Your task to perform on an android device: Do I have any events today? Image 0: 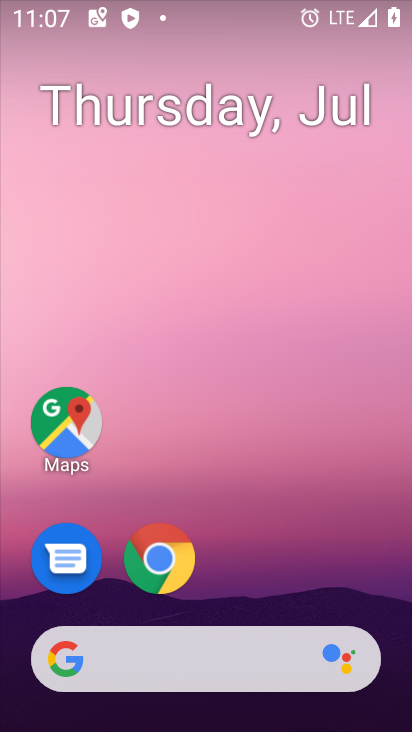
Step 0: drag from (354, 579) to (359, 95)
Your task to perform on an android device: Do I have any events today? Image 1: 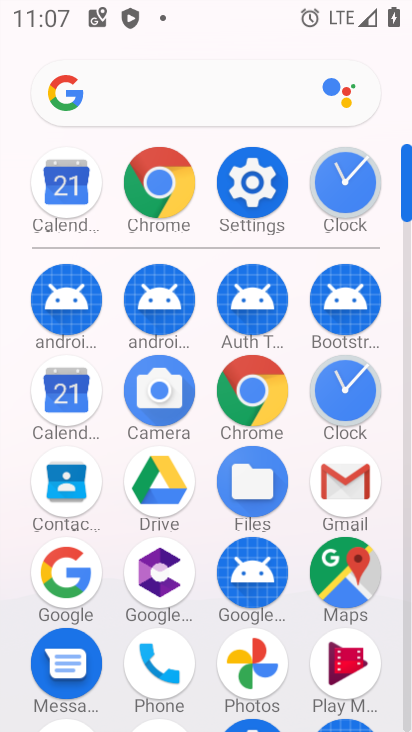
Step 1: click (74, 402)
Your task to perform on an android device: Do I have any events today? Image 2: 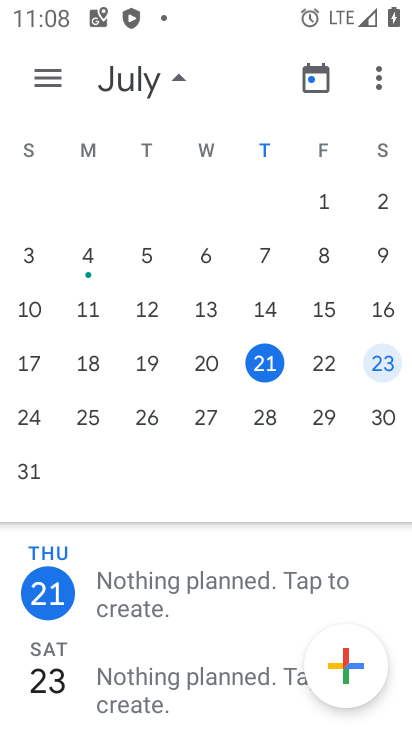
Step 2: click (322, 356)
Your task to perform on an android device: Do I have any events today? Image 3: 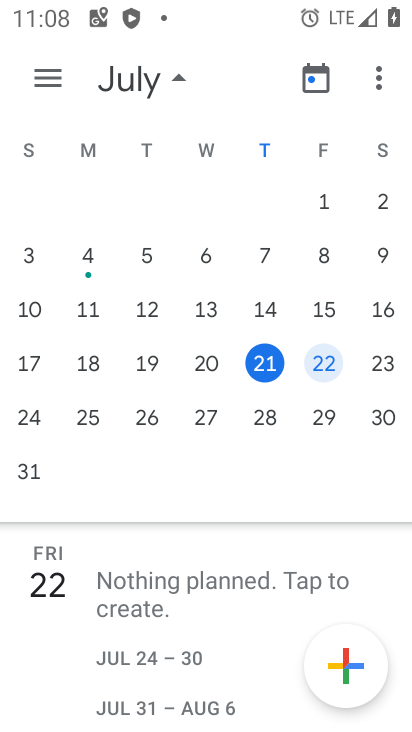
Step 3: task complete